Your task to perform on an android device: Check the weather Image 0: 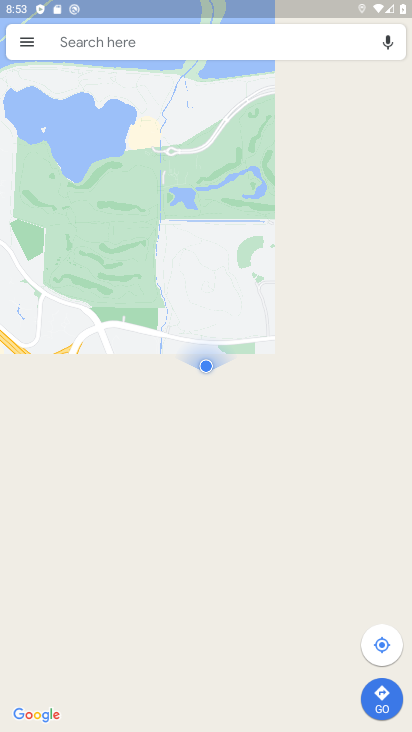
Step 0: press home button
Your task to perform on an android device: Check the weather Image 1: 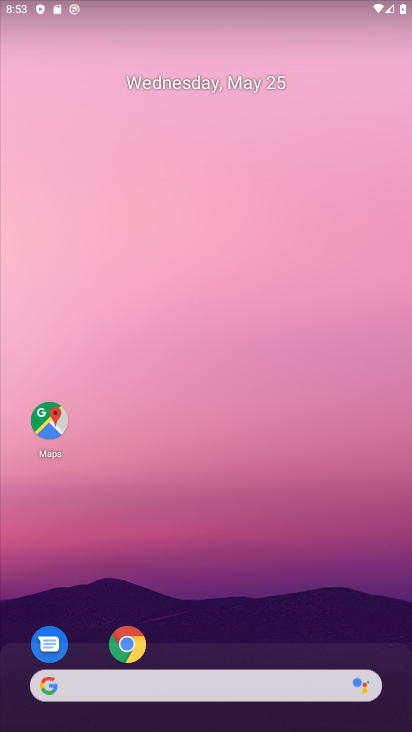
Step 1: click (86, 696)
Your task to perform on an android device: Check the weather Image 2: 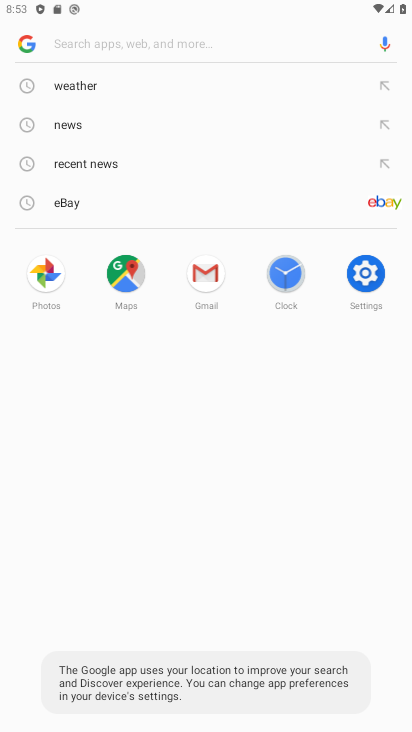
Step 2: click (91, 86)
Your task to perform on an android device: Check the weather Image 3: 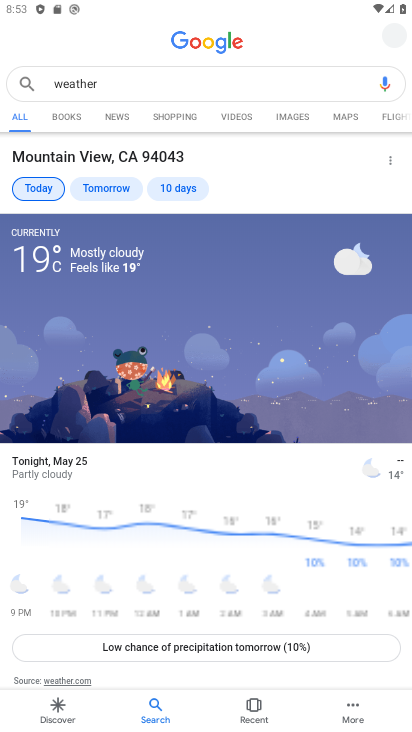
Step 3: task complete